Your task to perform on an android device: What's the weather? Image 0: 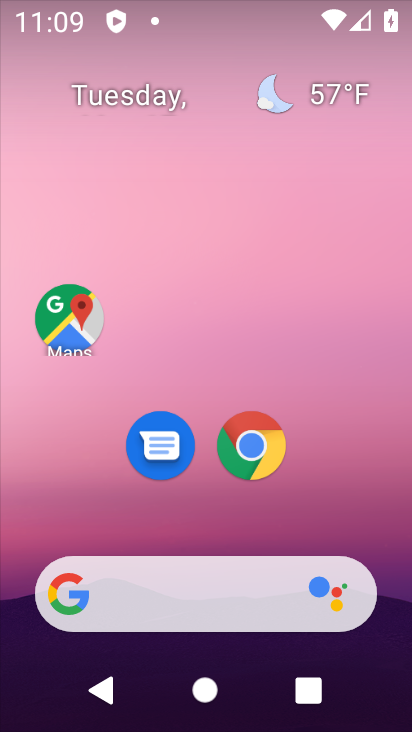
Step 0: click (267, 590)
Your task to perform on an android device: What's the weather? Image 1: 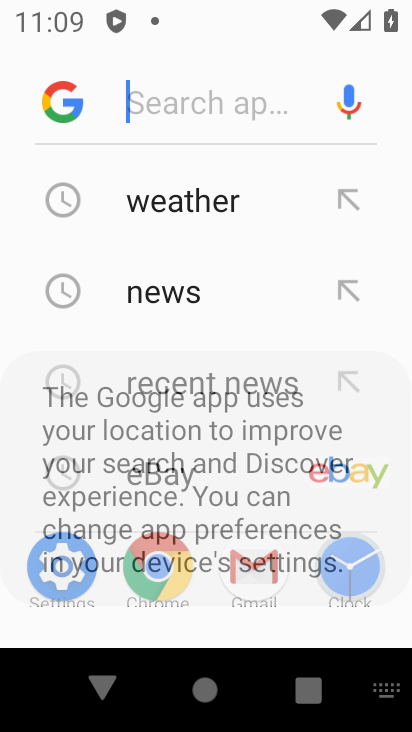
Step 1: click (208, 206)
Your task to perform on an android device: What's the weather? Image 2: 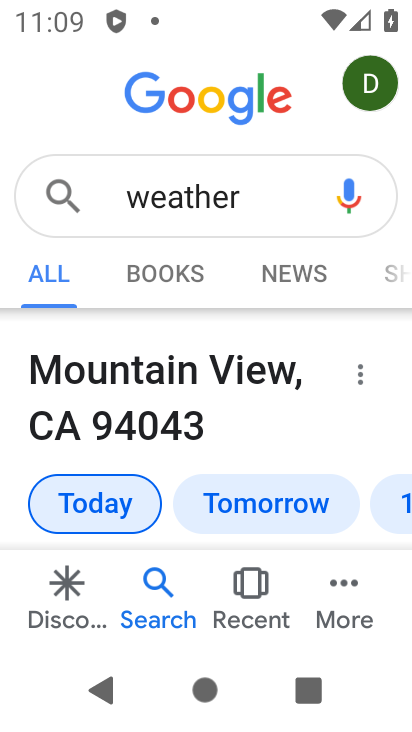
Step 2: task complete